Your task to perform on an android device: Open calendar and show me the second week of next month Image 0: 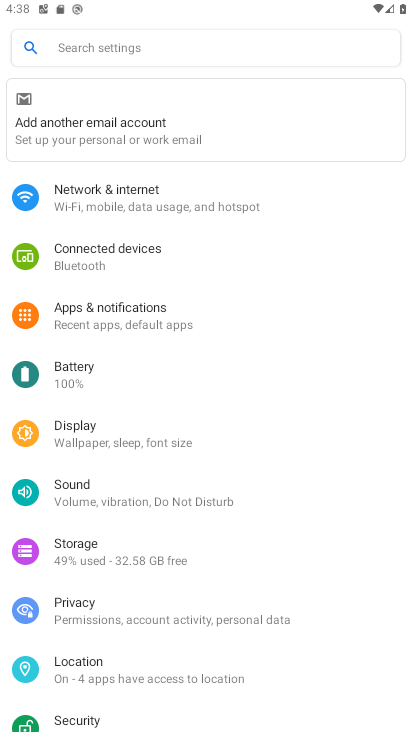
Step 0: press home button
Your task to perform on an android device: Open calendar and show me the second week of next month Image 1: 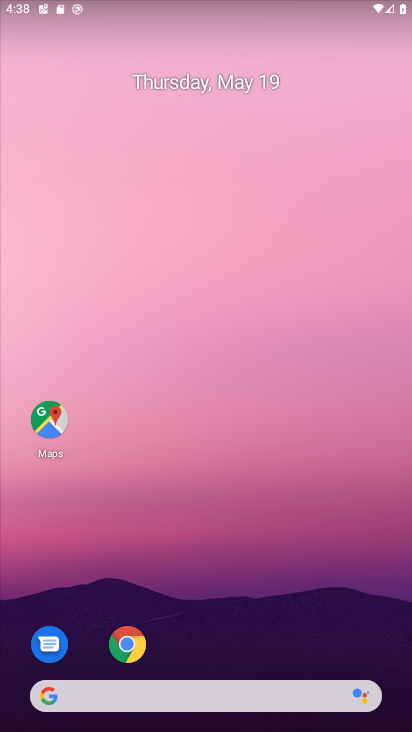
Step 1: drag from (356, 574) to (281, 1)
Your task to perform on an android device: Open calendar and show me the second week of next month Image 2: 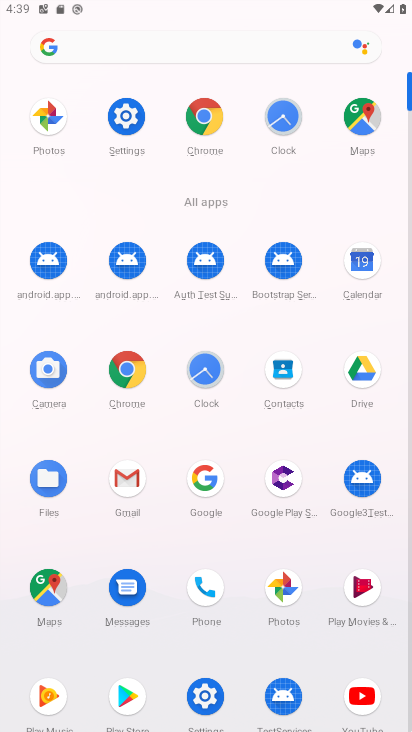
Step 2: click (347, 273)
Your task to perform on an android device: Open calendar and show me the second week of next month Image 3: 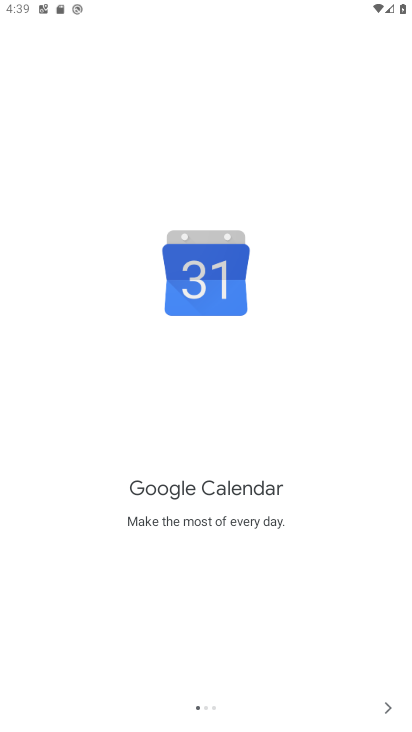
Step 3: click (372, 703)
Your task to perform on an android device: Open calendar and show me the second week of next month Image 4: 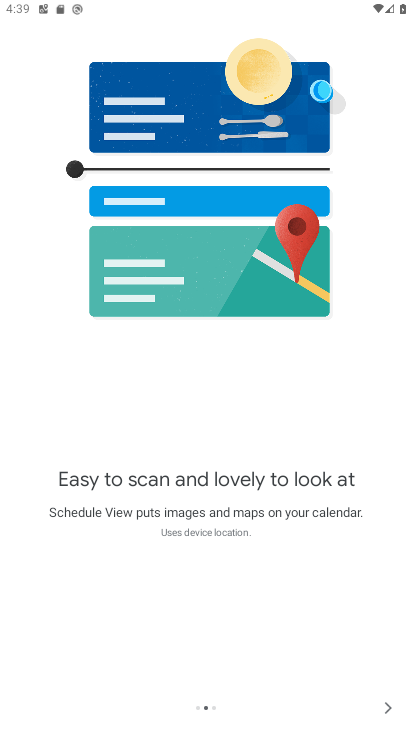
Step 4: click (372, 703)
Your task to perform on an android device: Open calendar and show me the second week of next month Image 5: 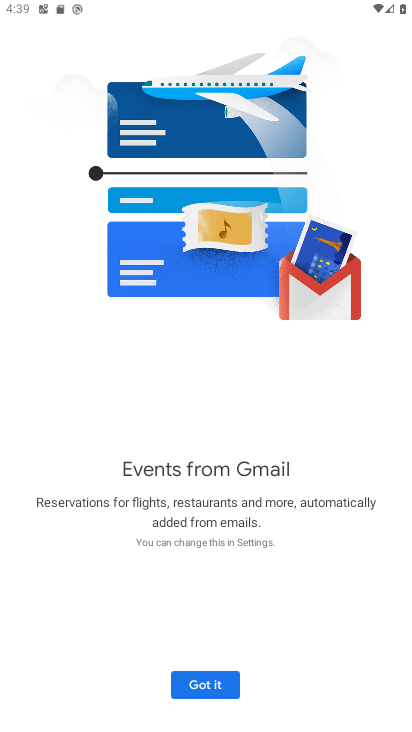
Step 5: click (186, 673)
Your task to perform on an android device: Open calendar and show me the second week of next month Image 6: 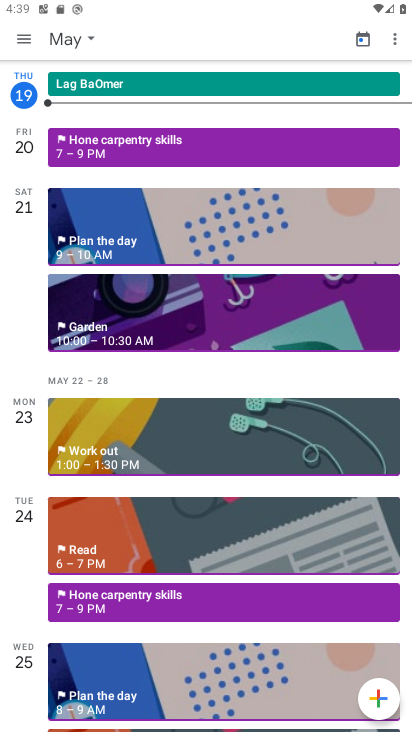
Step 6: click (62, 34)
Your task to perform on an android device: Open calendar and show me the second week of next month Image 7: 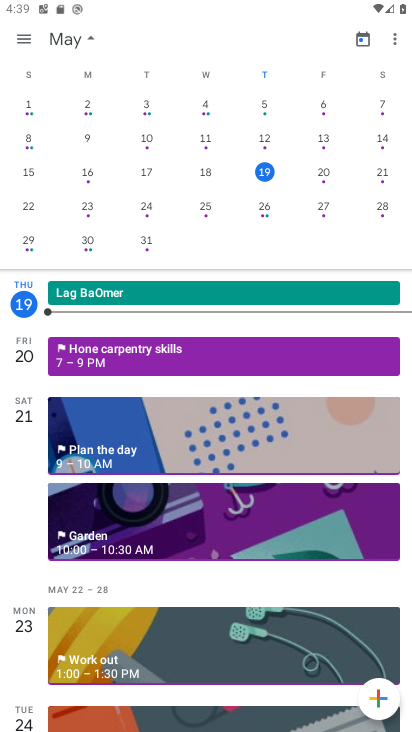
Step 7: drag from (369, 220) to (4, 232)
Your task to perform on an android device: Open calendar and show me the second week of next month Image 8: 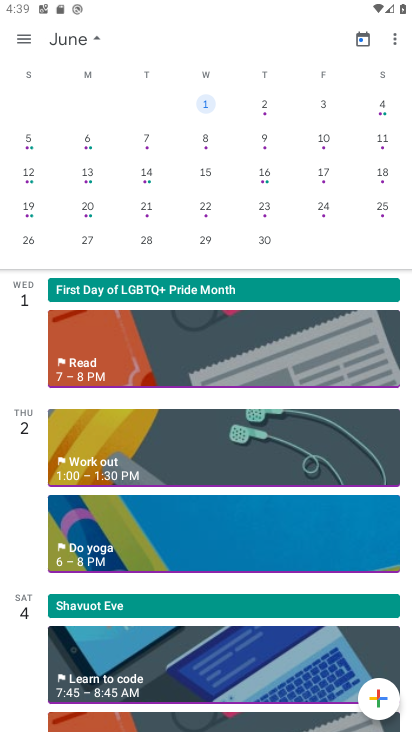
Step 8: click (196, 136)
Your task to perform on an android device: Open calendar and show me the second week of next month Image 9: 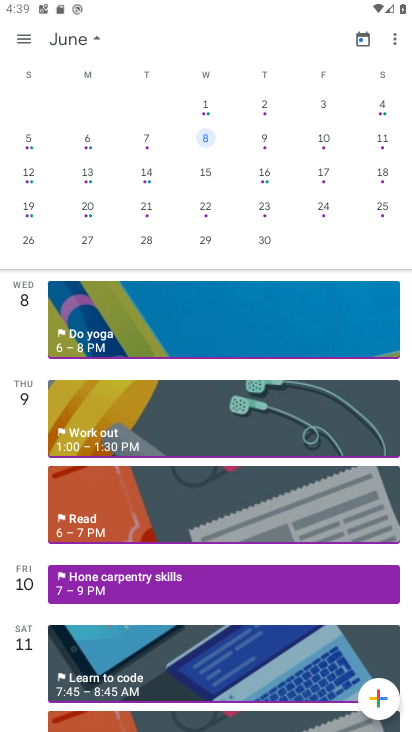
Step 9: task complete